Your task to perform on an android device: empty trash in google photos Image 0: 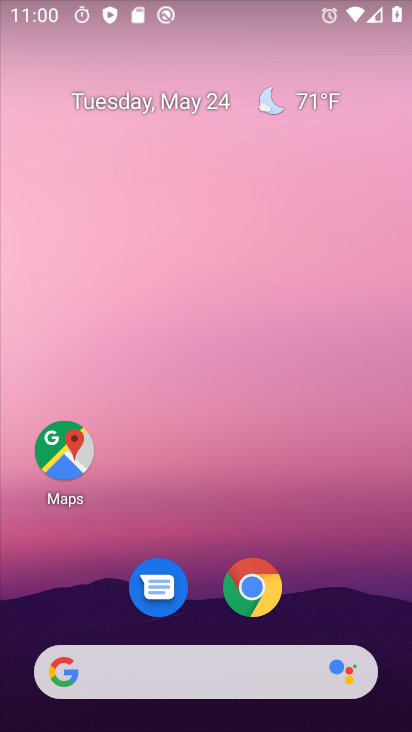
Step 0: drag from (383, 664) to (203, 177)
Your task to perform on an android device: empty trash in google photos Image 1: 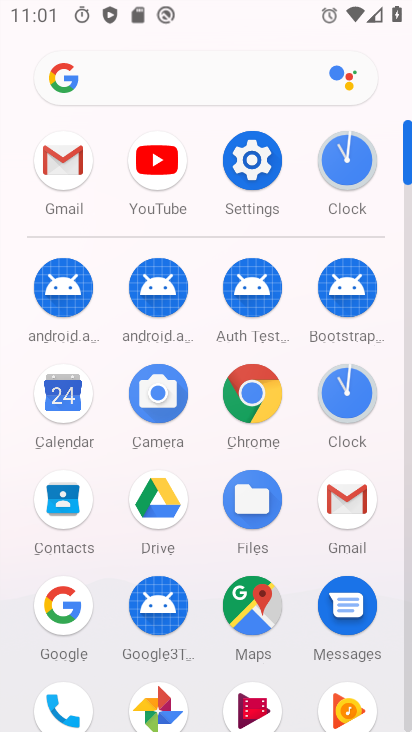
Step 1: drag from (308, 541) to (304, 253)
Your task to perform on an android device: empty trash in google photos Image 2: 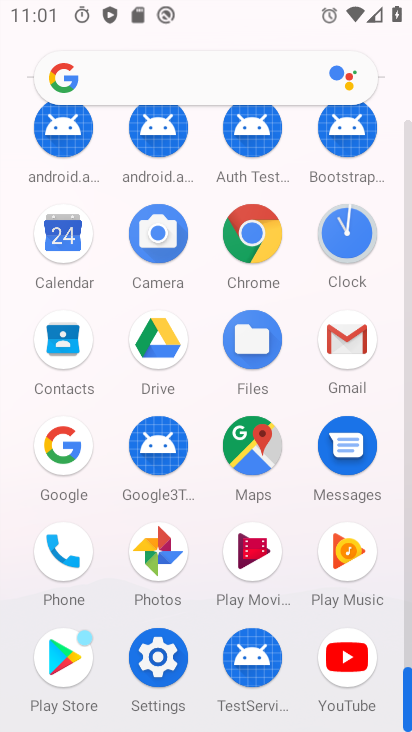
Step 2: drag from (304, 516) to (303, 224)
Your task to perform on an android device: empty trash in google photos Image 3: 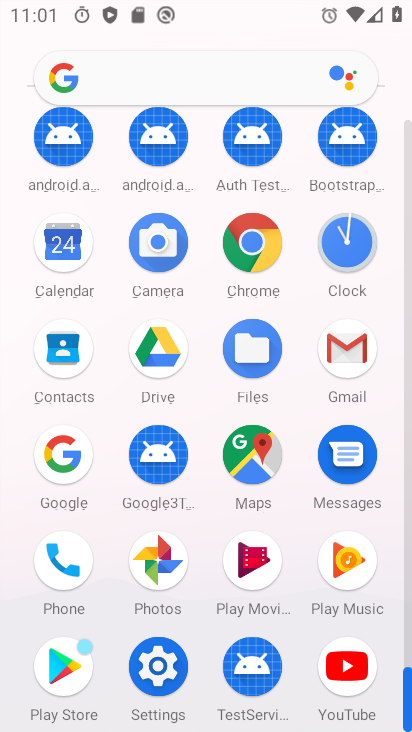
Step 3: click (160, 555)
Your task to perform on an android device: empty trash in google photos Image 4: 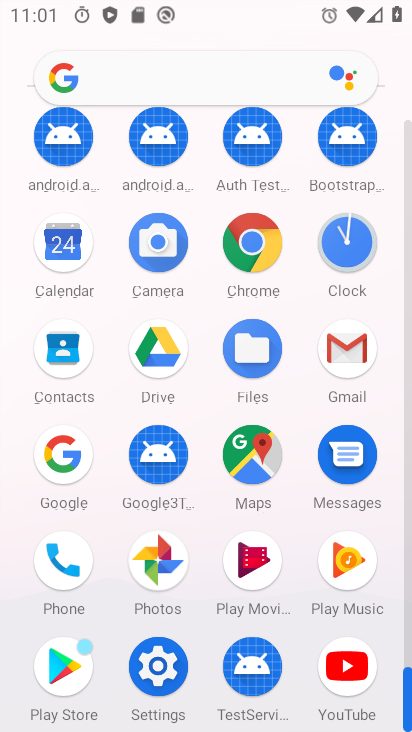
Step 4: click (160, 555)
Your task to perform on an android device: empty trash in google photos Image 5: 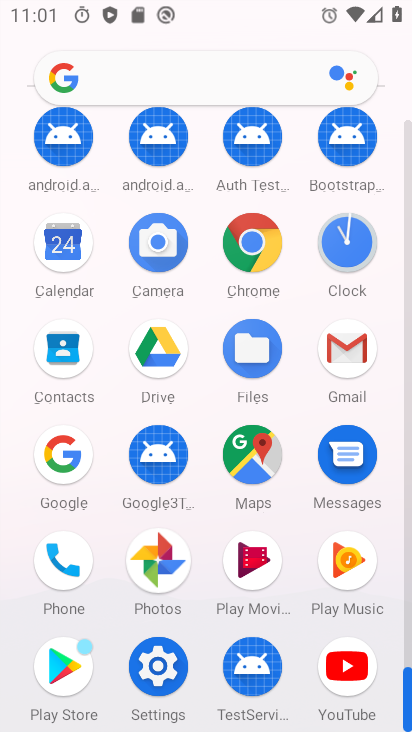
Step 5: click (160, 554)
Your task to perform on an android device: empty trash in google photos Image 6: 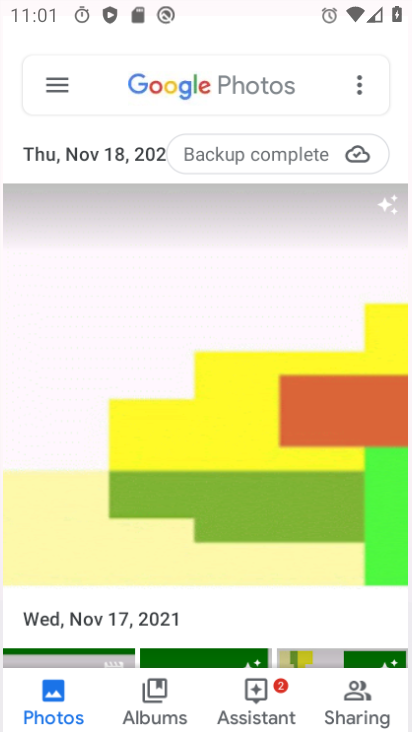
Step 6: click (160, 554)
Your task to perform on an android device: empty trash in google photos Image 7: 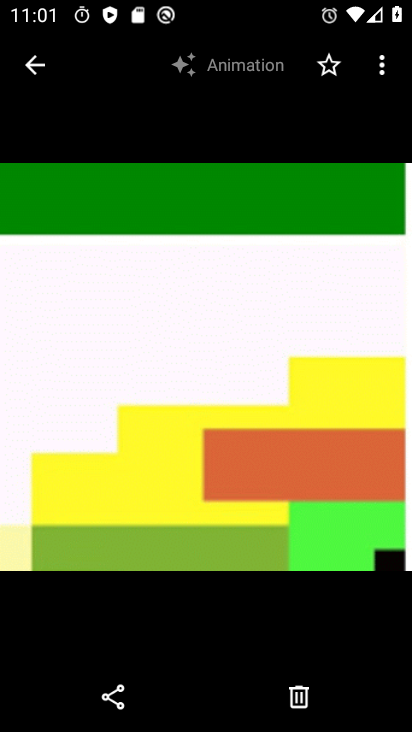
Step 7: click (30, 65)
Your task to perform on an android device: empty trash in google photos Image 8: 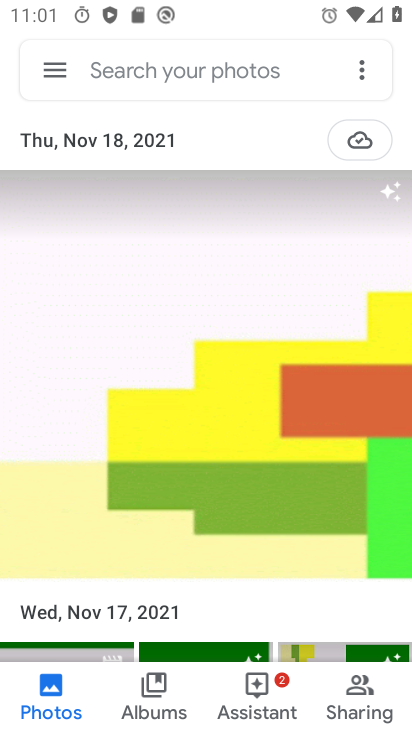
Step 8: drag from (51, 81) to (80, 244)
Your task to perform on an android device: empty trash in google photos Image 9: 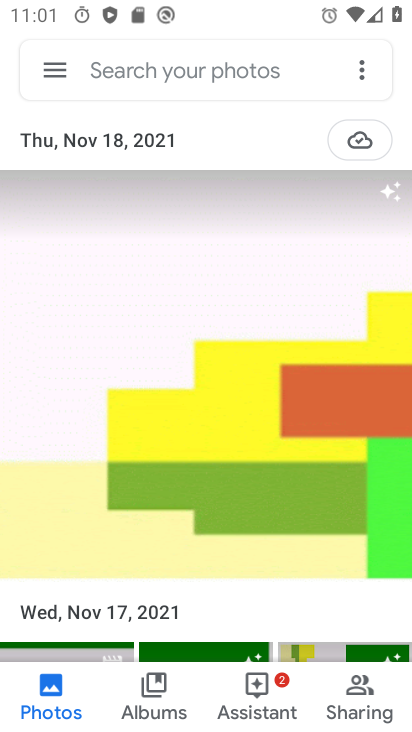
Step 9: click (59, 76)
Your task to perform on an android device: empty trash in google photos Image 10: 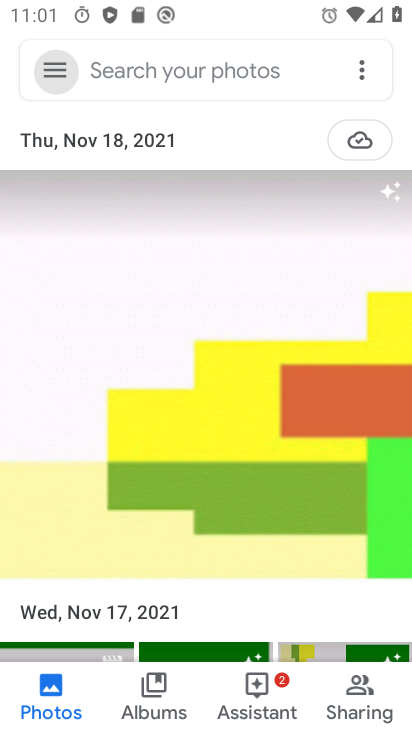
Step 10: click (71, 69)
Your task to perform on an android device: empty trash in google photos Image 11: 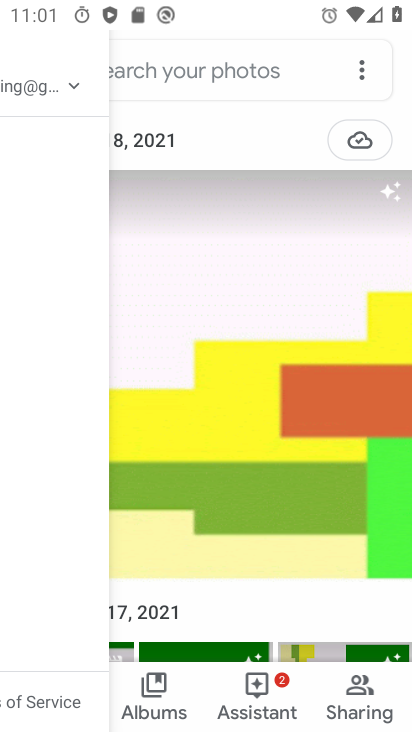
Step 11: drag from (71, 69) to (289, 649)
Your task to perform on an android device: empty trash in google photos Image 12: 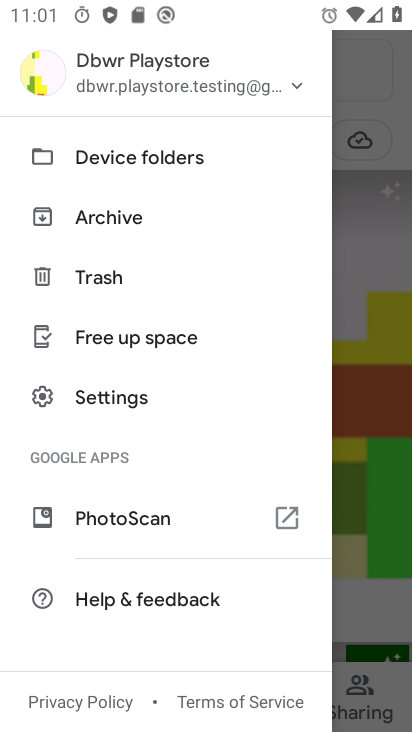
Step 12: click (91, 388)
Your task to perform on an android device: empty trash in google photos Image 13: 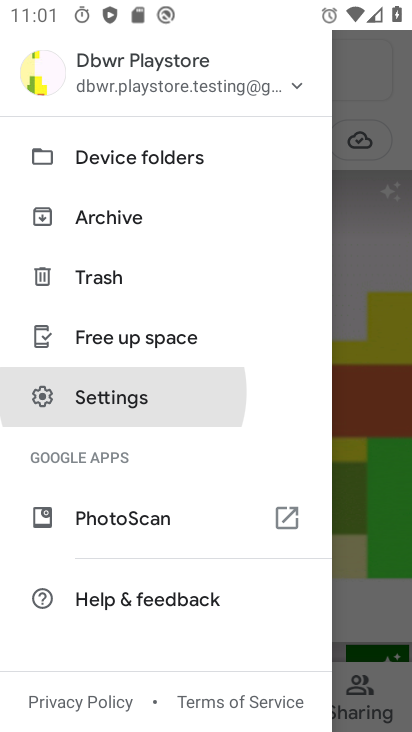
Step 13: click (100, 391)
Your task to perform on an android device: empty trash in google photos Image 14: 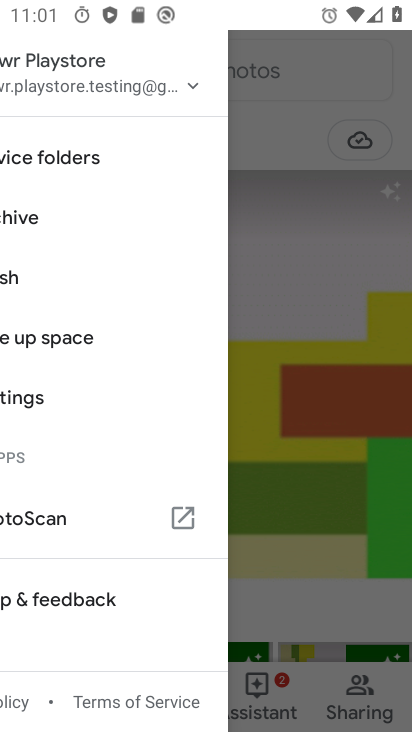
Step 14: click (100, 391)
Your task to perform on an android device: empty trash in google photos Image 15: 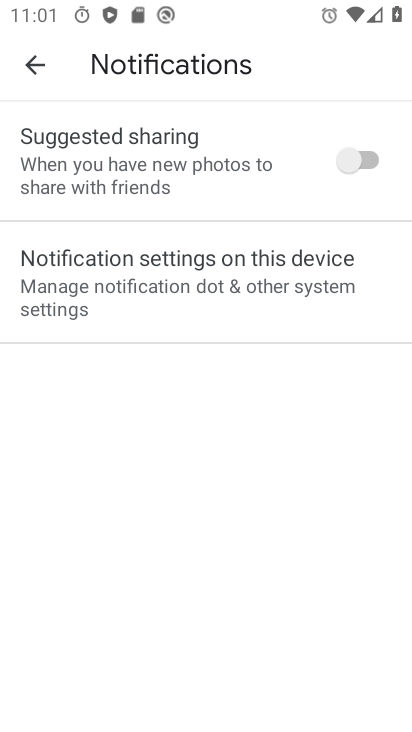
Step 15: click (38, 67)
Your task to perform on an android device: empty trash in google photos Image 16: 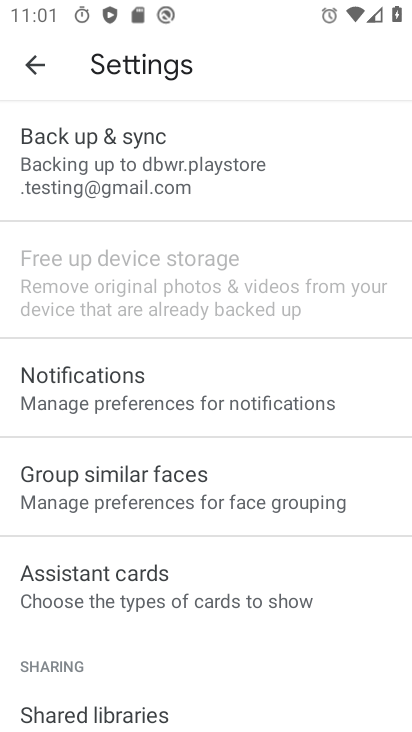
Step 16: click (26, 62)
Your task to perform on an android device: empty trash in google photos Image 17: 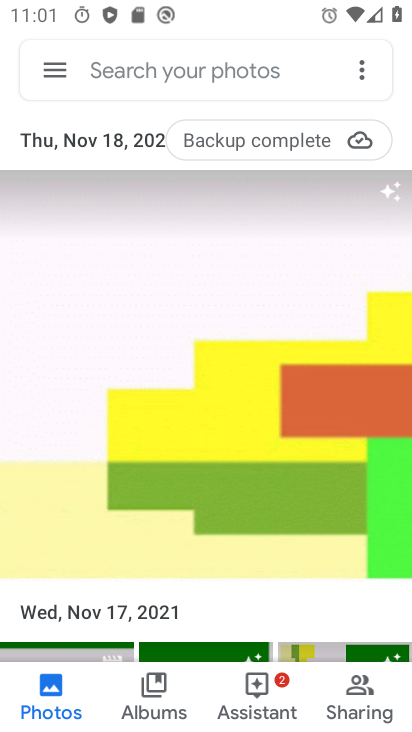
Step 17: click (51, 74)
Your task to perform on an android device: empty trash in google photos Image 18: 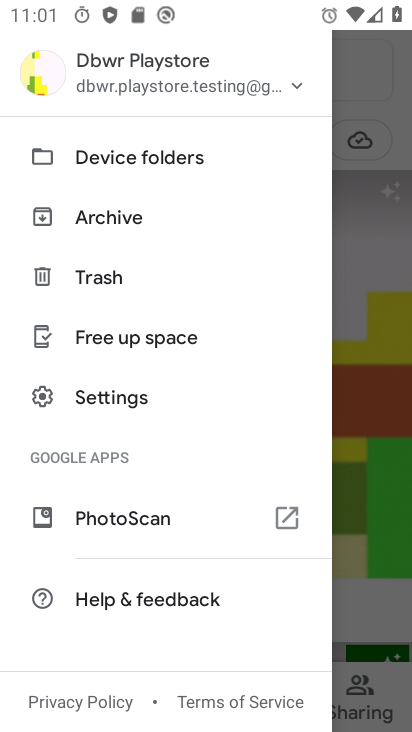
Step 18: click (103, 274)
Your task to perform on an android device: empty trash in google photos Image 19: 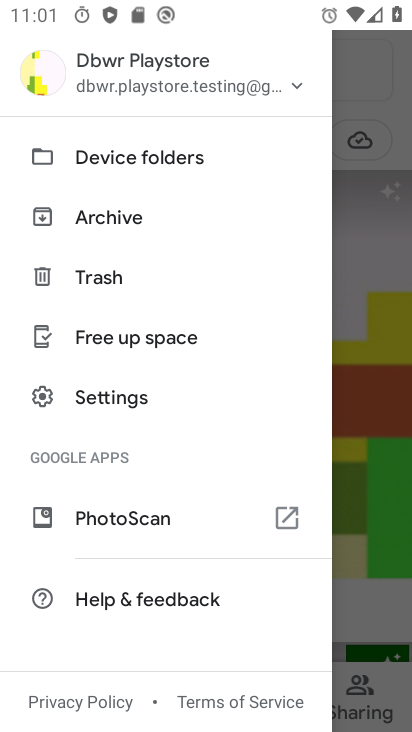
Step 19: click (103, 274)
Your task to perform on an android device: empty trash in google photos Image 20: 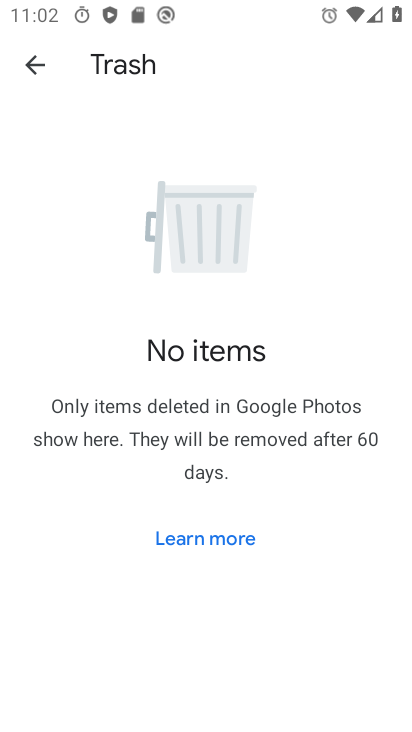
Step 20: task complete